Your task to perform on an android device: open a bookmark in the chrome app Image 0: 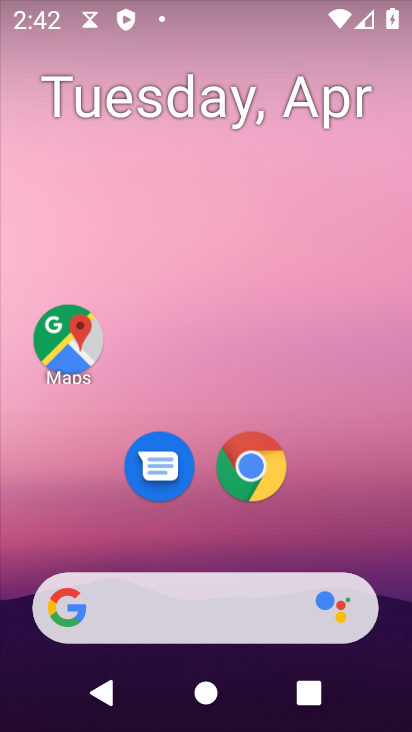
Step 0: drag from (303, 434) to (256, 3)
Your task to perform on an android device: open a bookmark in the chrome app Image 1: 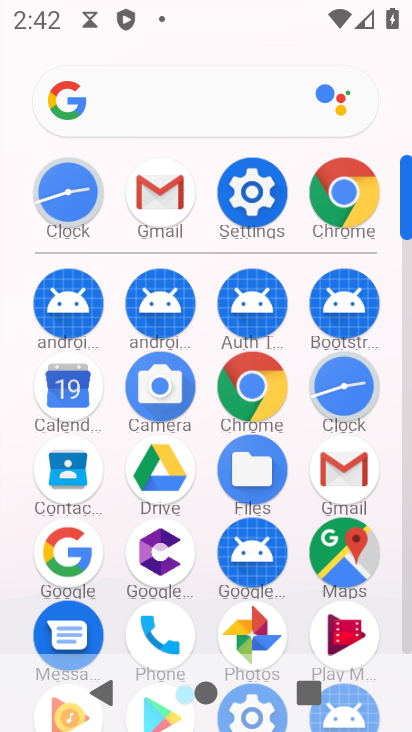
Step 1: click (247, 386)
Your task to perform on an android device: open a bookmark in the chrome app Image 2: 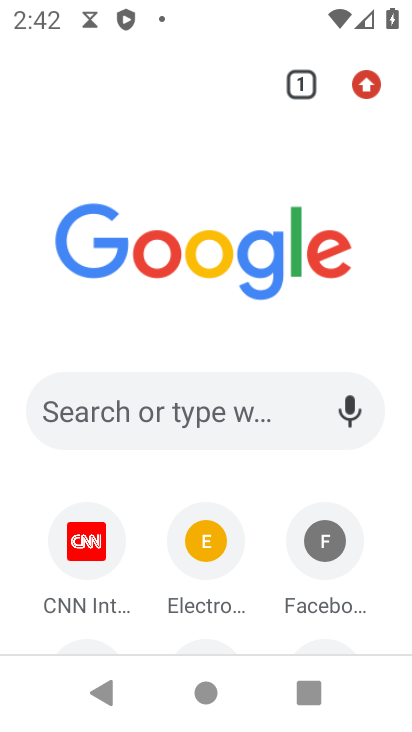
Step 2: task complete